Your task to perform on an android device: Open Google Maps Image 0: 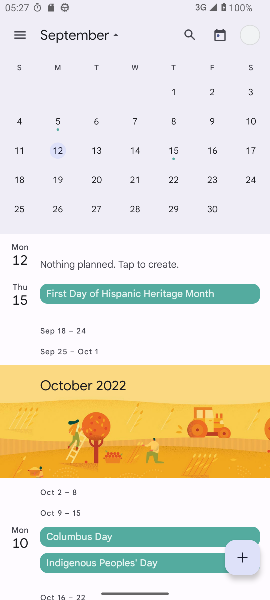
Step 0: press home button
Your task to perform on an android device: Open Google Maps Image 1: 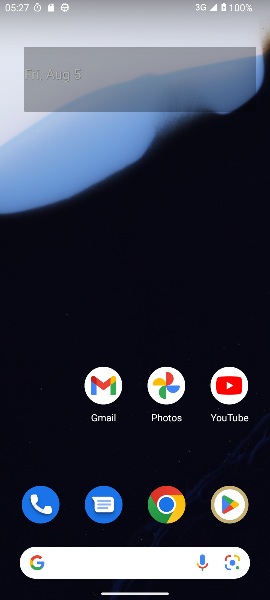
Step 1: drag from (15, 574) to (187, 177)
Your task to perform on an android device: Open Google Maps Image 2: 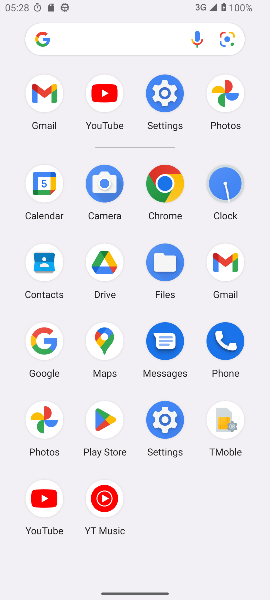
Step 2: click (109, 352)
Your task to perform on an android device: Open Google Maps Image 3: 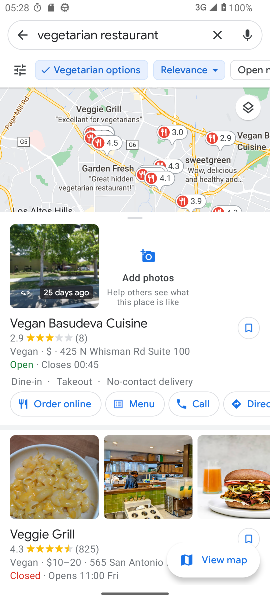
Step 3: click (100, 342)
Your task to perform on an android device: Open Google Maps Image 4: 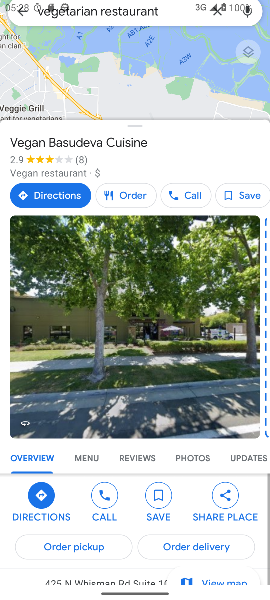
Step 4: click (26, 35)
Your task to perform on an android device: Open Google Maps Image 5: 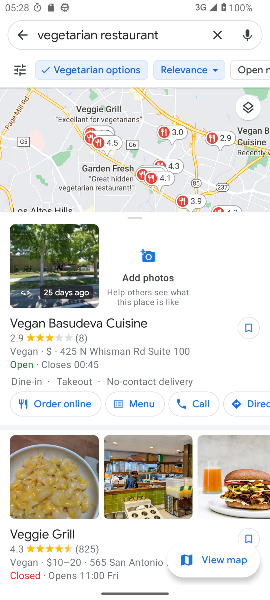
Step 5: click (216, 34)
Your task to perform on an android device: Open Google Maps Image 6: 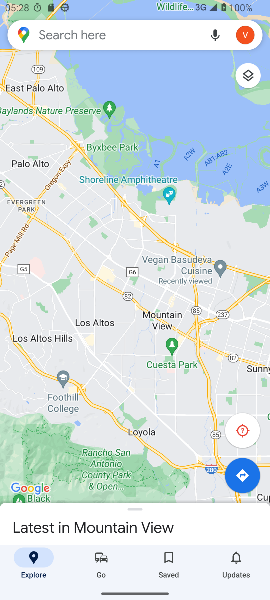
Step 6: task complete